Your task to perform on an android device: check android version Image 0: 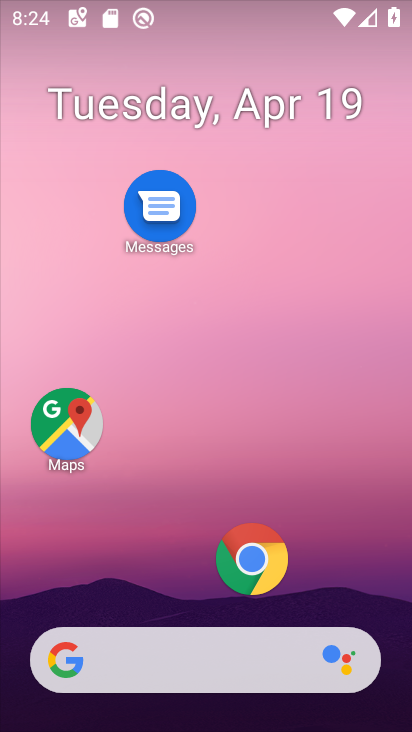
Step 0: drag from (165, 692) to (166, 110)
Your task to perform on an android device: check android version Image 1: 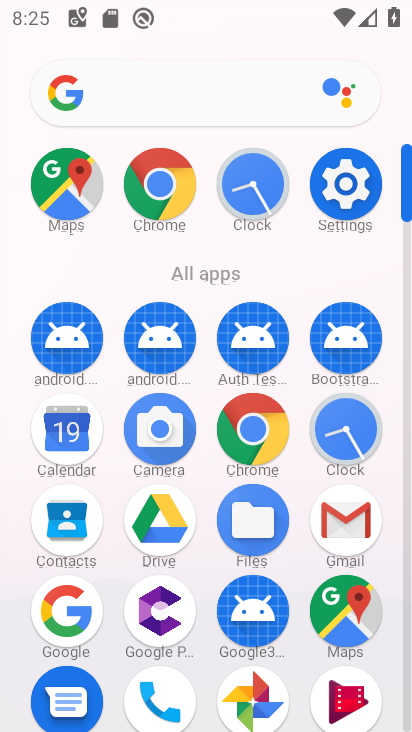
Step 1: click (352, 199)
Your task to perform on an android device: check android version Image 2: 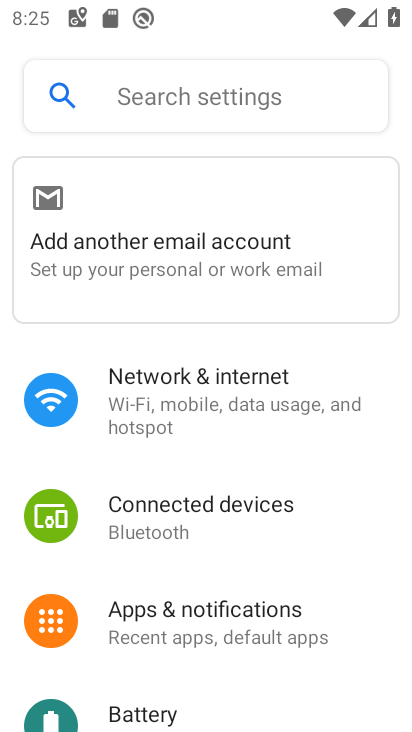
Step 2: drag from (184, 564) to (162, 167)
Your task to perform on an android device: check android version Image 3: 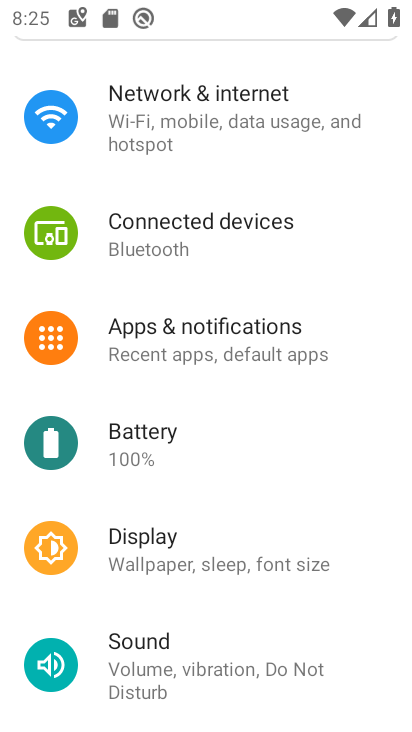
Step 3: drag from (225, 611) to (221, 83)
Your task to perform on an android device: check android version Image 4: 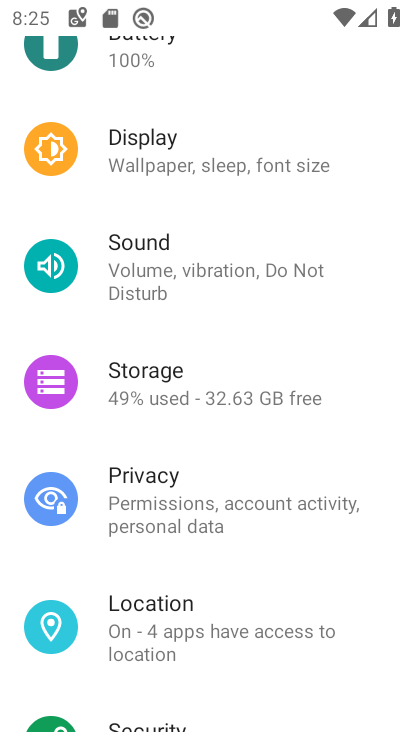
Step 4: drag from (185, 565) to (171, 10)
Your task to perform on an android device: check android version Image 5: 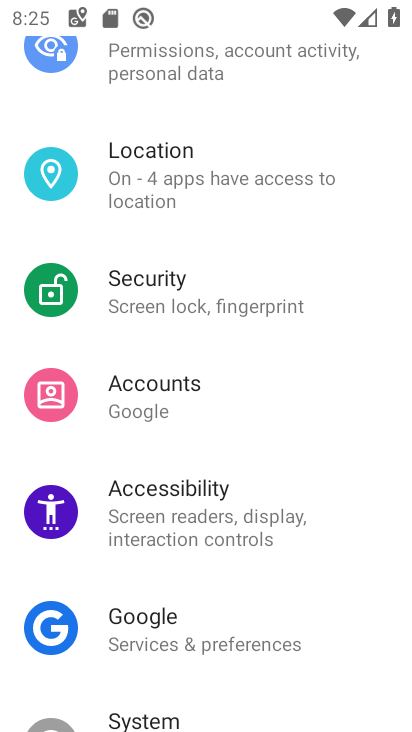
Step 5: drag from (234, 634) to (233, 125)
Your task to perform on an android device: check android version Image 6: 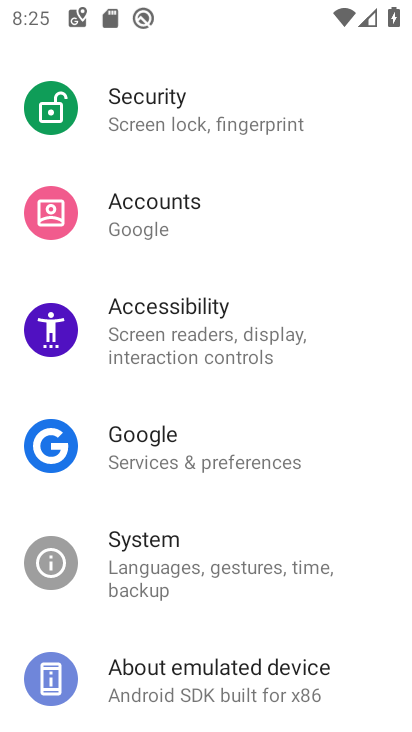
Step 6: drag from (168, 619) to (156, 389)
Your task to perform on an android device: check android version Image 7: 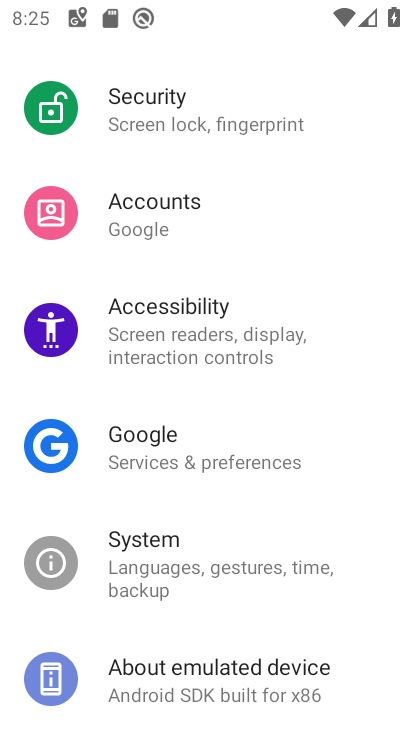
Step 7: click (189, 689)
Your task to perform on an android device: check android version Image 8: 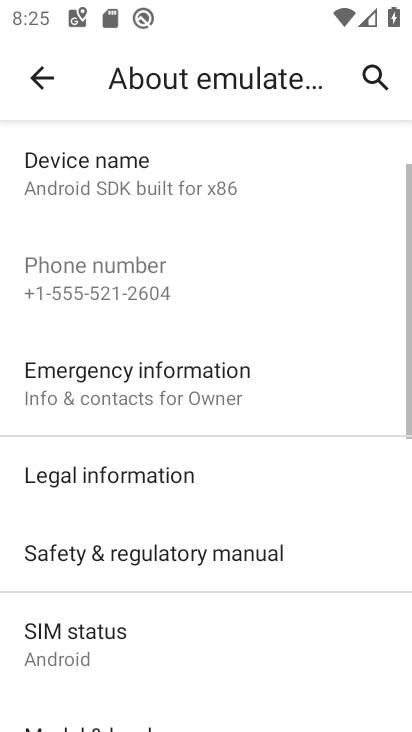
Step 8: drag from (172, 545) to (167, 188)
Your task to perform on an android device: check android version Image 9: 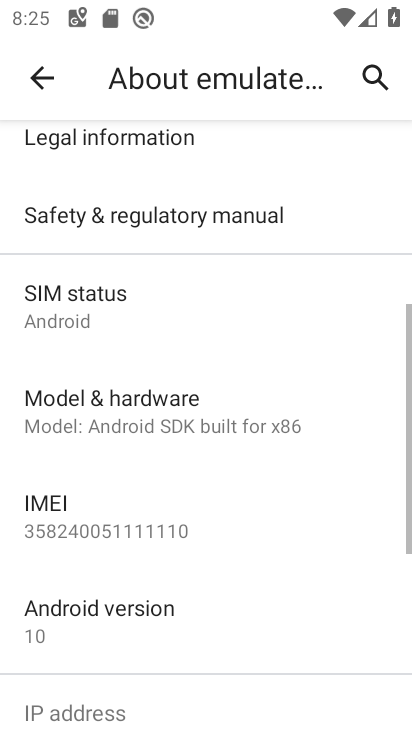
Step 9: click (137, 616)
Your task to perform on an android device: check android version Image 10: 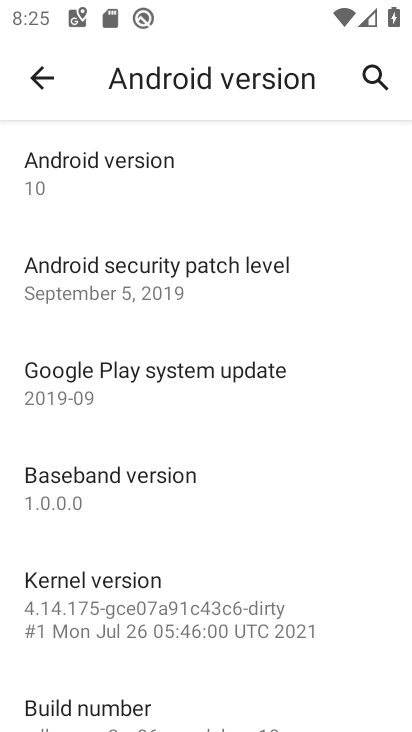
Step 10: task complete